Your task to perform on an android device: set the timer Image 0: 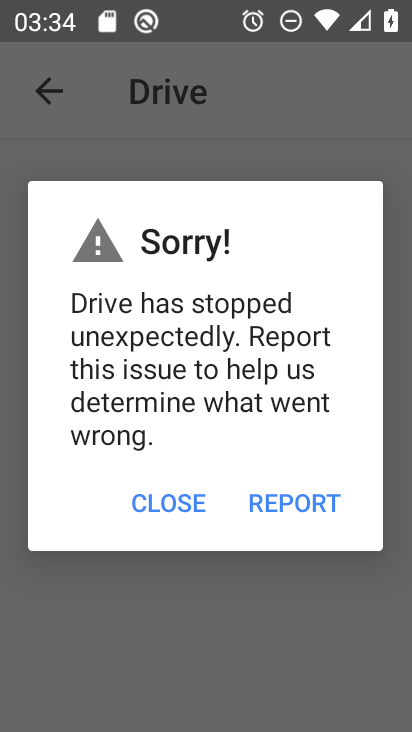
Step 0: press home button
Your task to perform on an android device: set the timer Image 1: 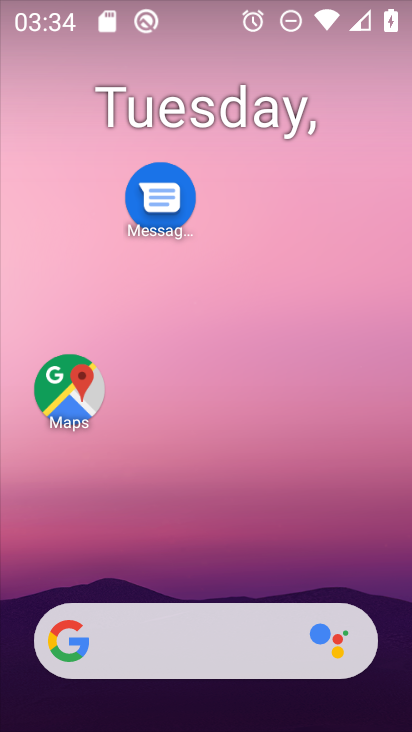
Step 1: drag from (207, 581) to (242, 145)
Your task to perform on an android device: set the timer Image 2: 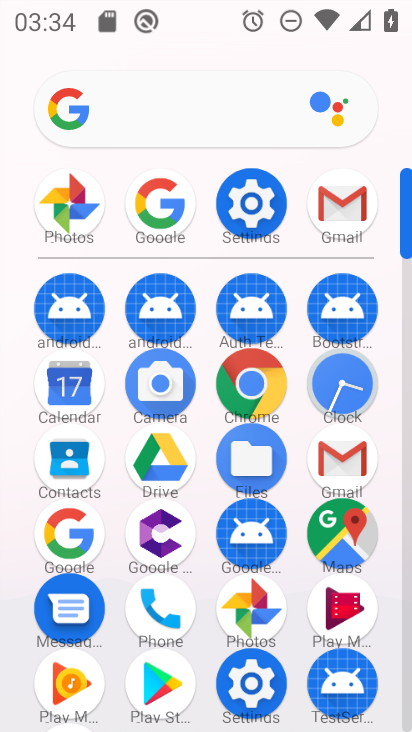
Step 2: click (346, 406)
Your task to perform on an android device: set the timer Image 3: 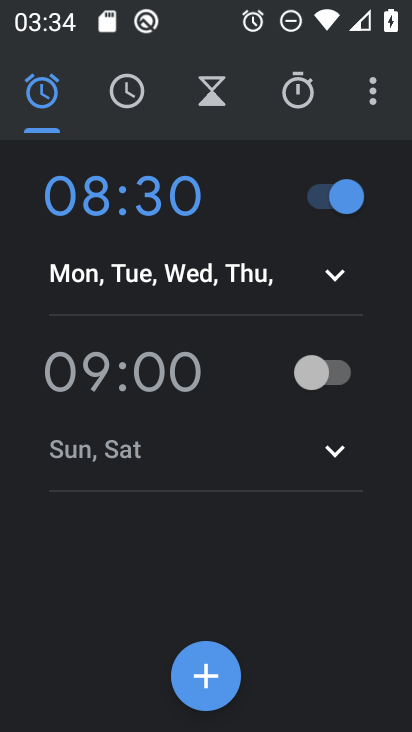
Step 3: click (203, 93)
Your task to perform on an android device: set the timer Image 4: 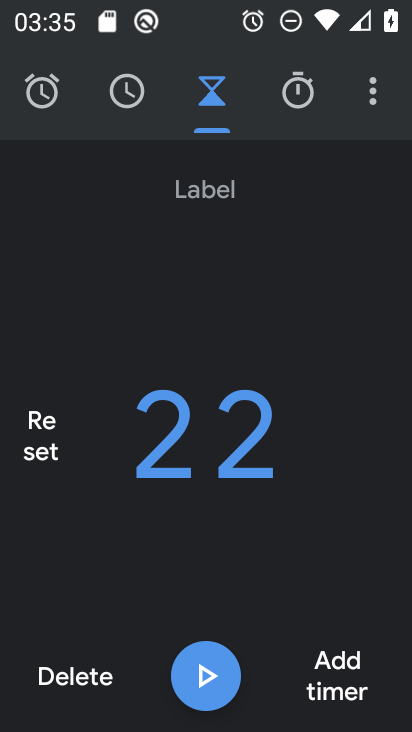
Step 4: click (216, 672)
Your task to perform on an android device: set the timer Image 5: 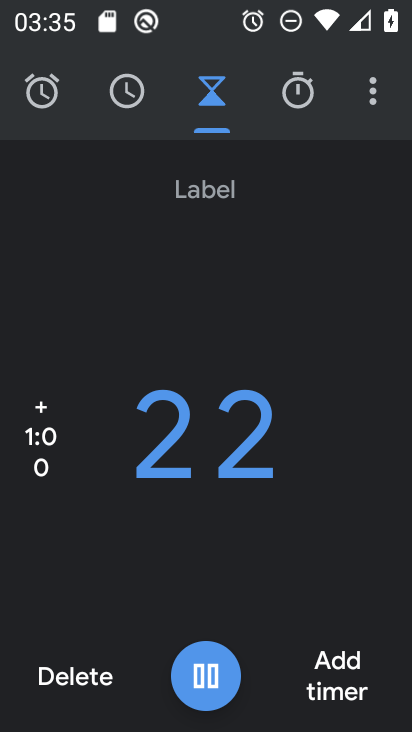
Step 5: task complete